Your task to perform on an android device: Do I have any events tomorrow? Image 0: 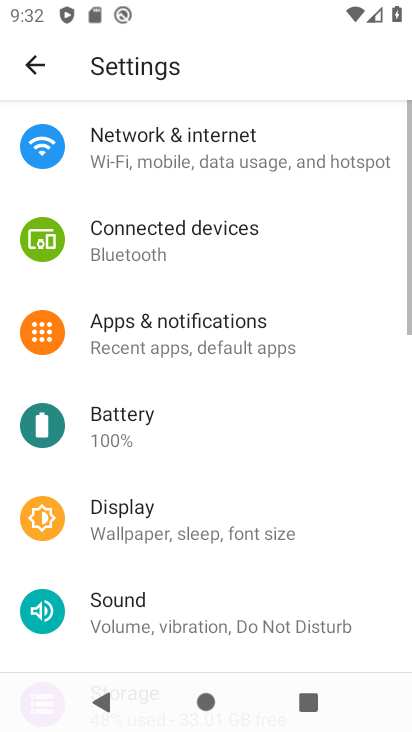
Step 0: press home button
Your task to perform on an android device: Do I have any events tomorrow? Image 1: 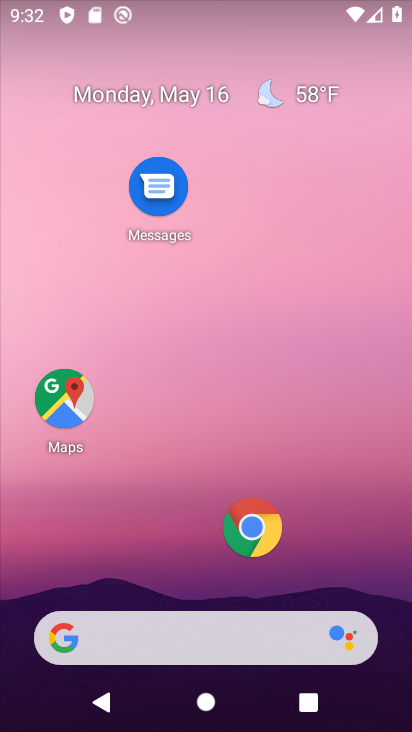
Step 1: drag from (173, 543) to (192, 104)
Your task to perform on an android device: Do I have any events tomorrow? Image 2: 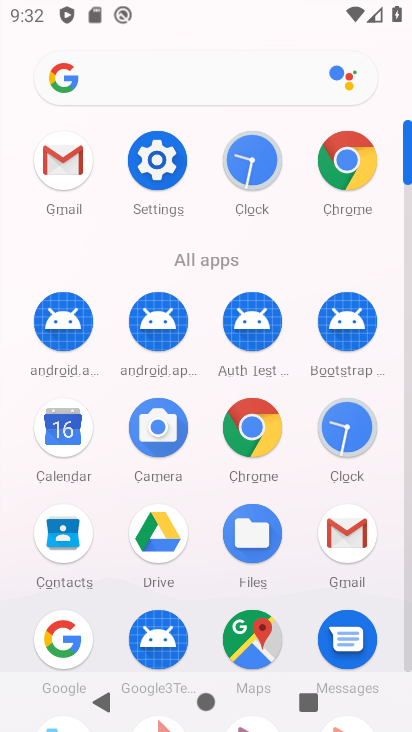
Step 2: click (58, 423)
Your task to perform on an android device: Do I have any events tomorrow? Image 3: 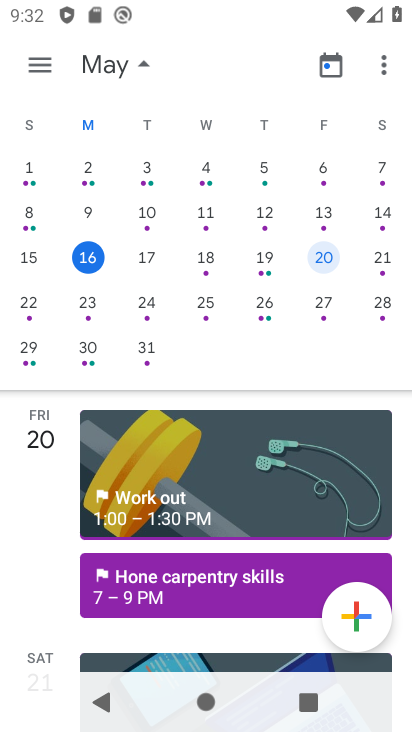
Step 3: click (144, 256)
Your task to perform on an android device: Do I have any events tomorrow? Image 4: 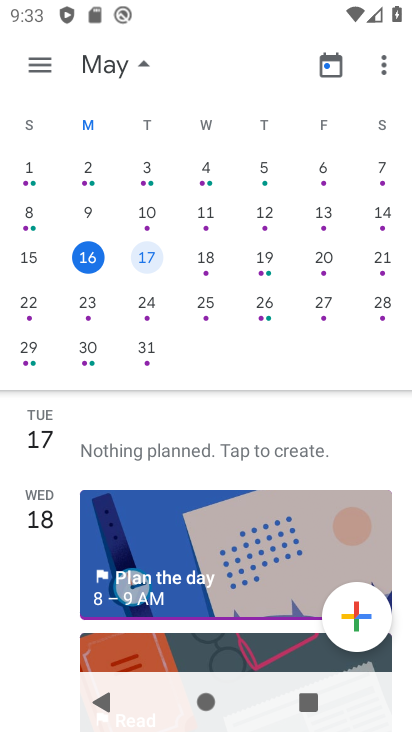
Step 4: task complete